Your task to perform on an android device: check out phone information Image 0: 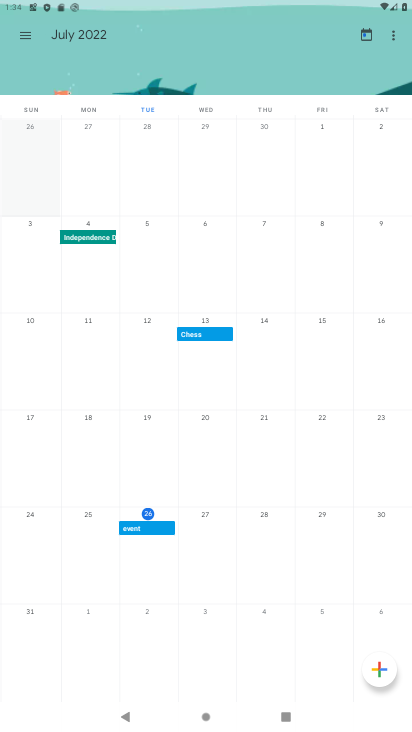
Step 0: press home button
Your task to perform on an android device: check out phone information Image 1: 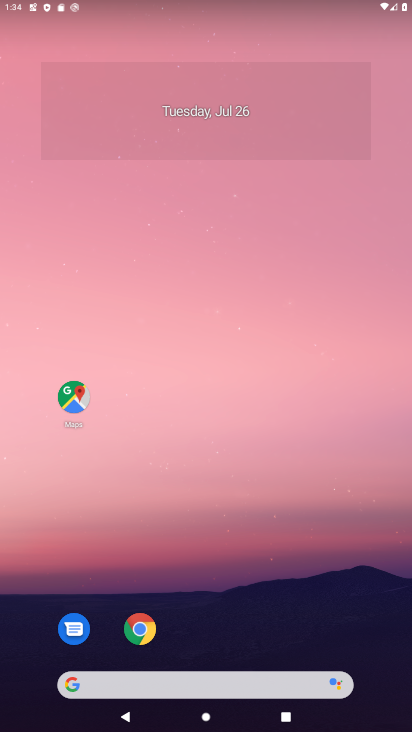
Step 1: drag from (291, 619) to (350, 167)
Your task to perform on an android device: check out phone information Image 2: 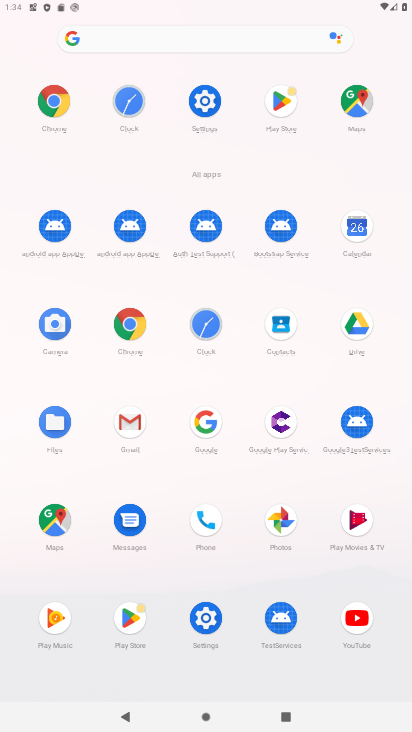
Step 2: click (208, 620)
Your task to perform on an android device: check out phone information Image 3: 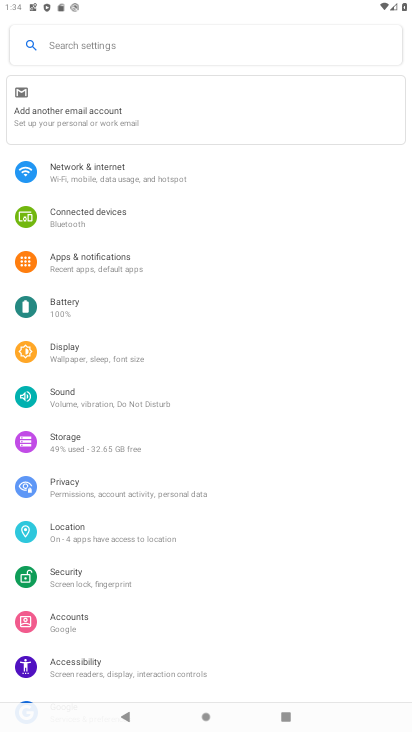
Step 3: drag from (308, 484) to (317, 188)
Your task to perform on an android device: check out phone information Image 4: 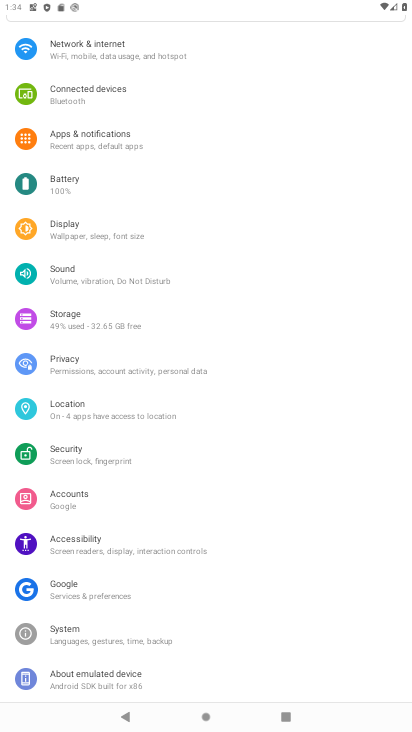
Step 4: click (130, 675)
Your task to perform on an android device: check out phone information Image 5: 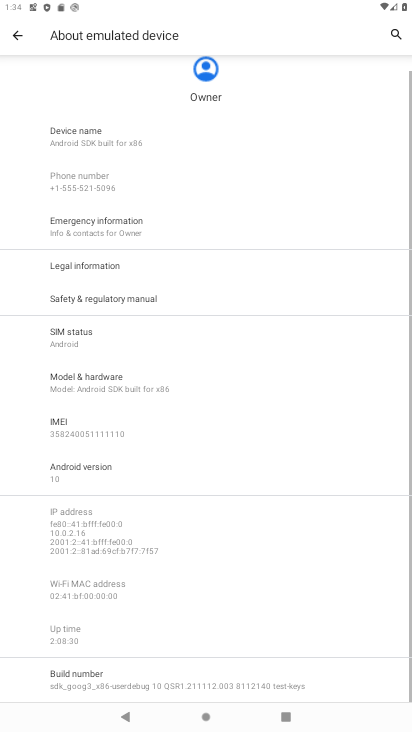
Step 5: task complete